Your task to perform on an android device: Open Google Maps and go to "Timeline" Image 0: 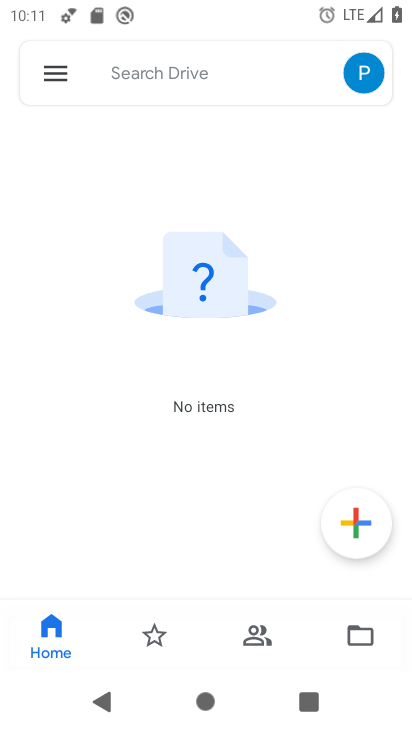
Step 0: press home button
Your task to perform on an android device: Open Google Maps and go to "Timeline" Image 1: 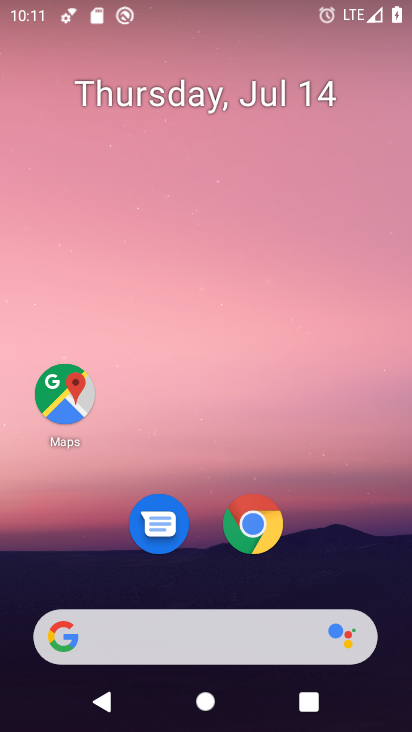
Step 1: click (68, 393)
Your task to perform on an android device: Open Google Maps and go to "Timeline" Image 2: 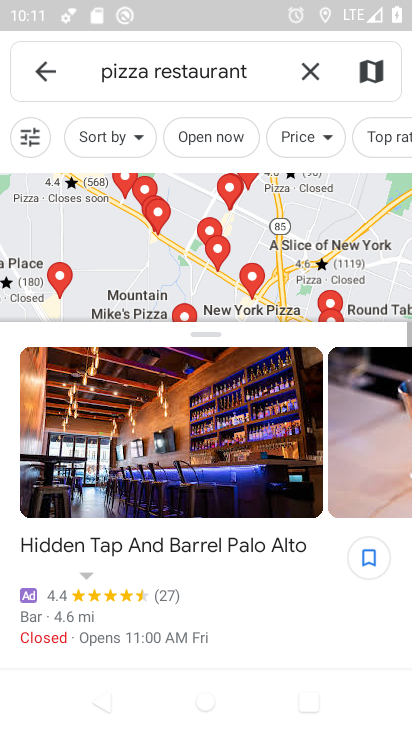
Step 2: click (49, 67)
Your task to perform on an android device: Open Google Maps and go to "Timeline" Image 3: 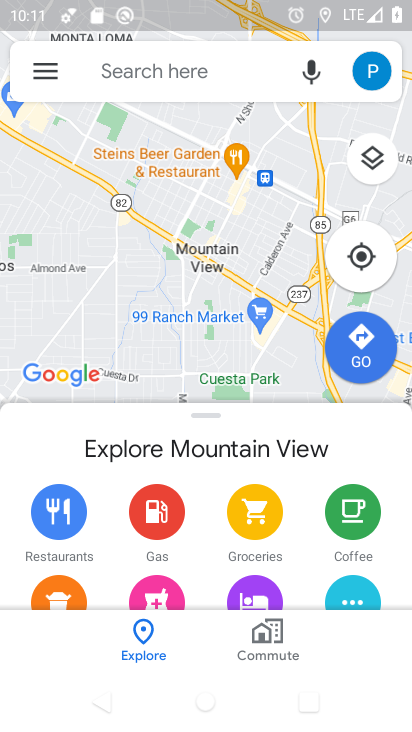
Step 3: click (47, 64)
Your task to perform on an android device: Open Google Maps and go to "Timeline" Image 4: 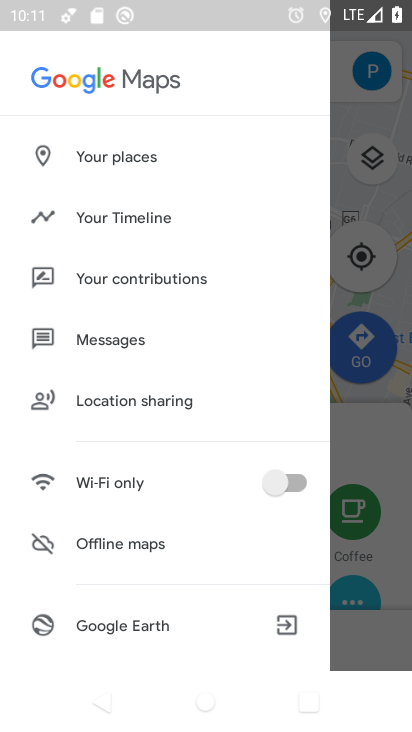
Step 4: click (142, 206)
Your task to perform on an android device: Open Google Maps and go to "Timeline" Image 5: 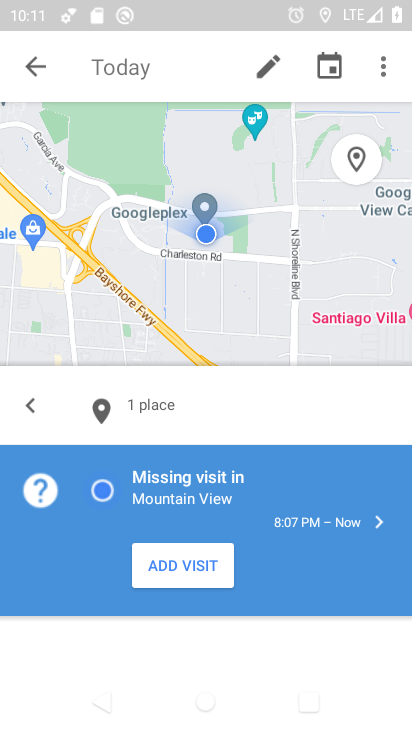
Step 5: task complete